Your task to perform on an android device: Open Android settings Image 0: 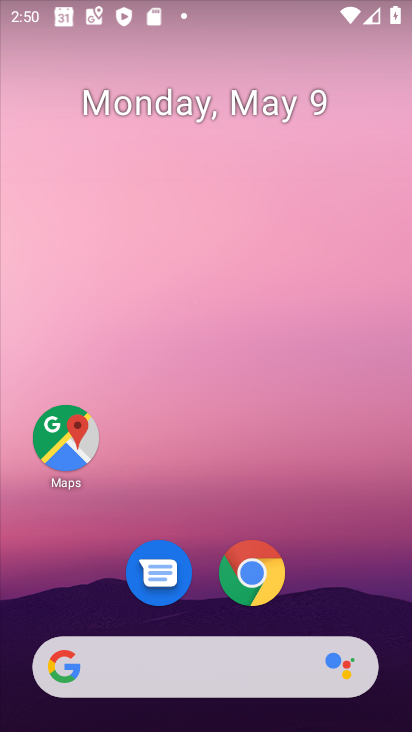
Step 0: drag from (196, 636) to (198, 265)
Your task to perform on an android device: Open Android settings Image 1: 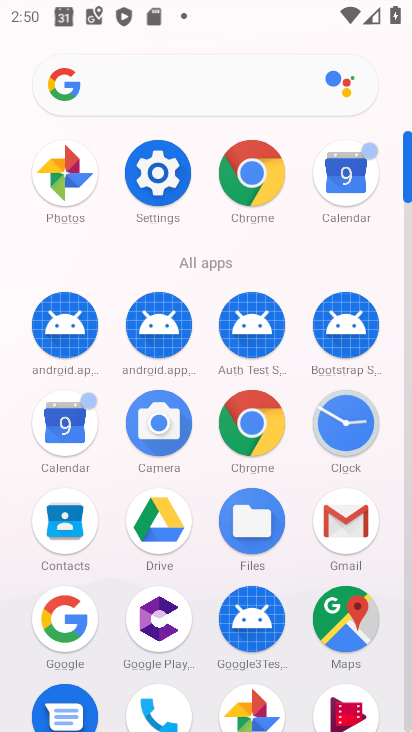
Step 1: click (165, 178)
Your task to perform on an android device: Open Android settings Image 2: 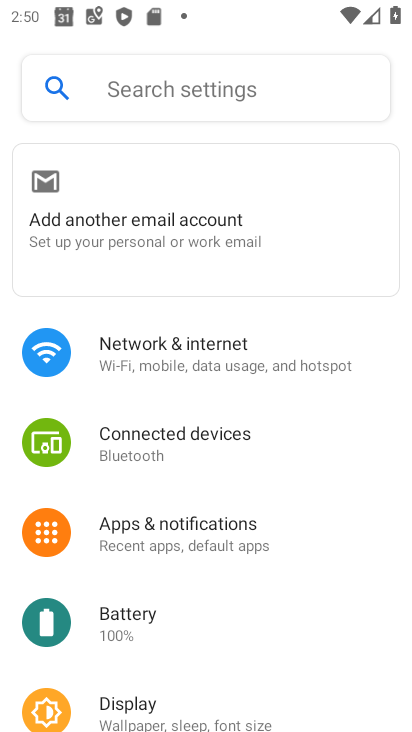
Step 2: task complete